Your task to perform on an android device: Open the phone app and click the voicemail tab. Image 0: 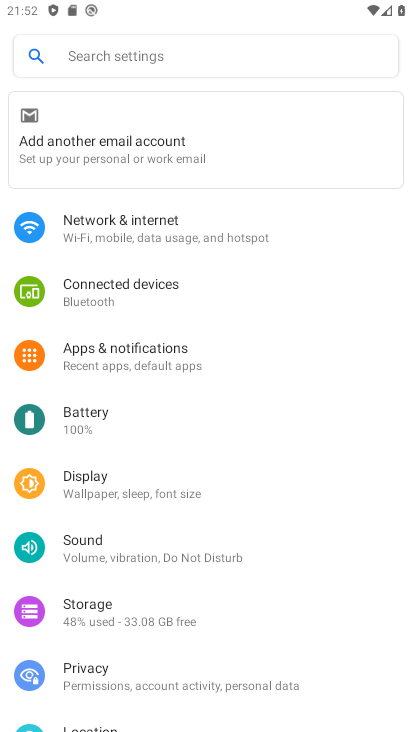
Step 0: press home button
Your task to perform on an android device: Open the phone app and click the voicemail tab. Image 1: 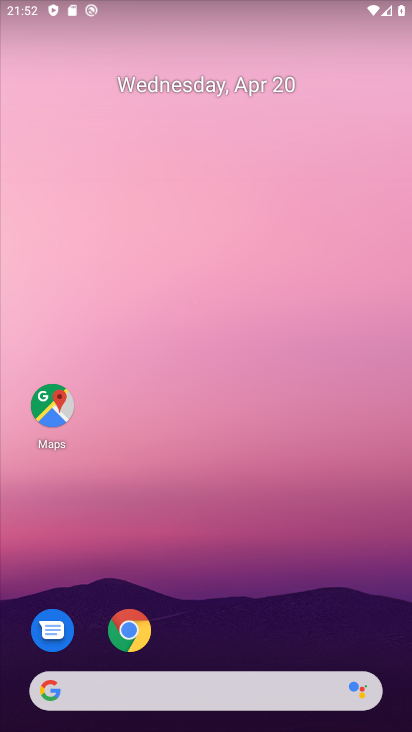
Step 1: drag from (266, 662) to (324, 141)
Your task to perform on an android device: Open the phone app and click the voicemail tab. Image 2: 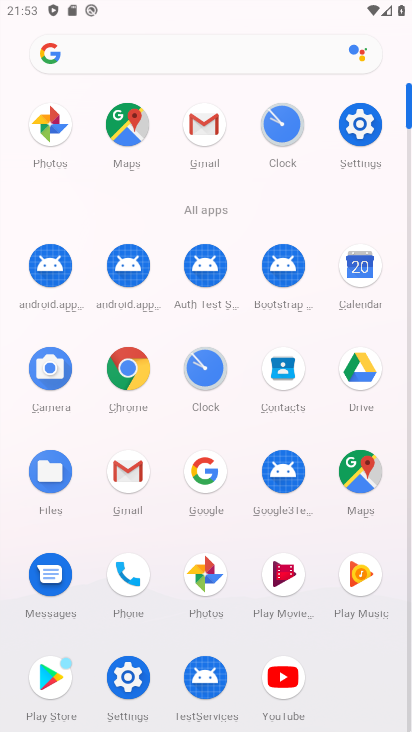
Step 2: click (127, 576)
Your task to perform on an android device: Open the phone app and click the voicemail tab. Image 3: 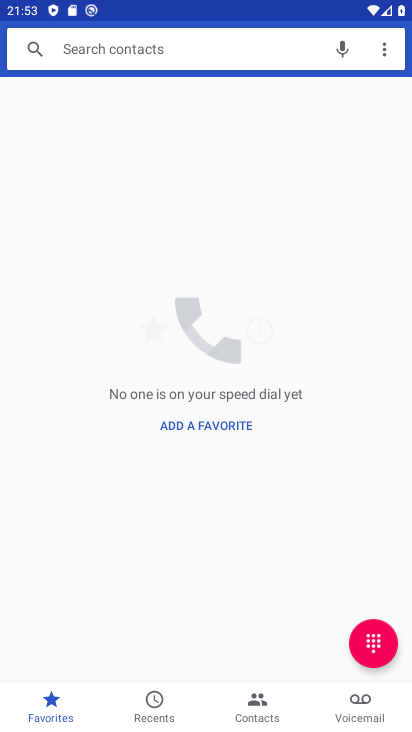
Step 3: click (376, 713)
Your task to perform on an android device: Open the phone app and click the voicemail tab. Image 4: 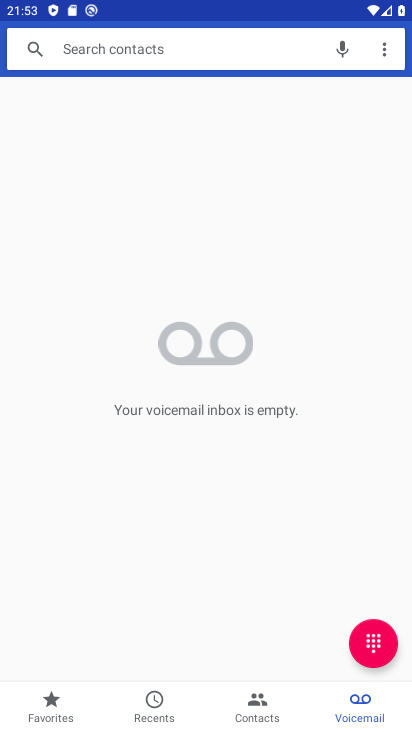
Step 4: task complete